Your task to perform on an android device: Play the last video I watched on Youtube Image 0: 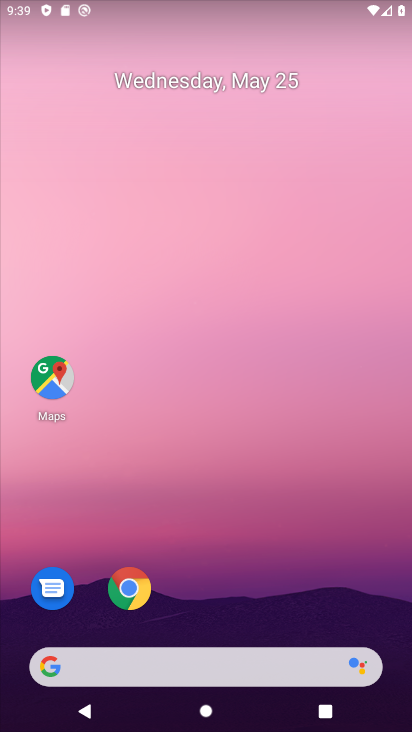
Step 0: drag from (253, 598) to (299, 8)
Your task to perform on an android device: Play the last video I watched on Youtube Image 1: 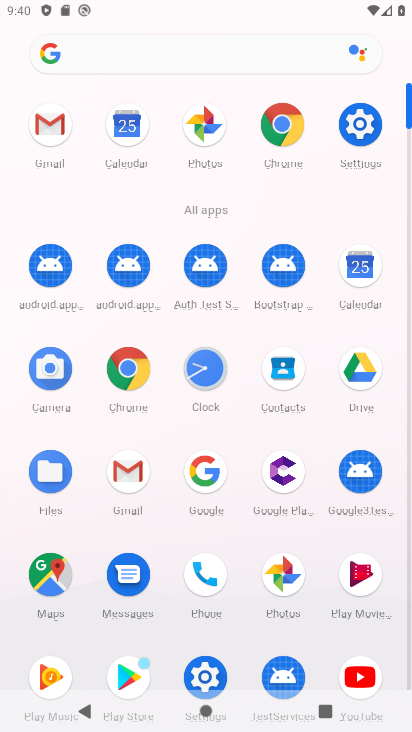
Step 1: click (364, 666)
Your task to perform on an android device: Play the last video I watched on Youtube Image 2: 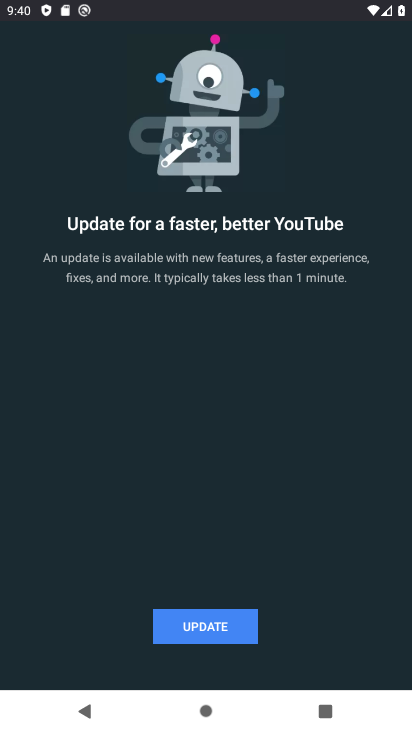
Step 2: click (221, 629)
Your task to perform on an android device: Play the last video I watched on Youtube Image 3: 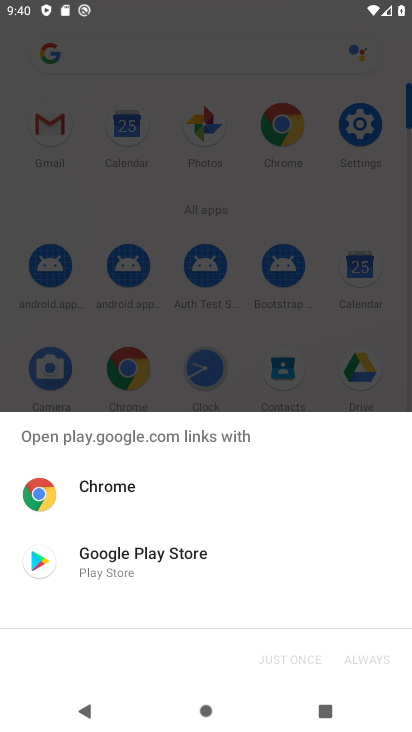
Step 3: click (112, 561)
Your task to perform on an android device: Play the last video I watched on Youtube Image 4: 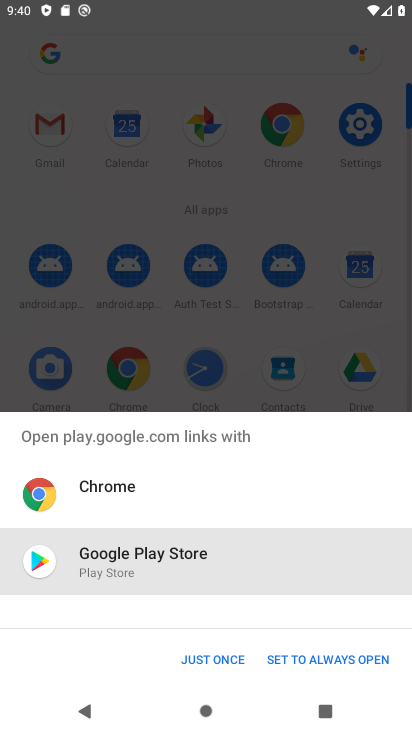
Step 4: click (199, 650)
Your task to perform on an android device: Play the last video I watched on Youtube Image 5: 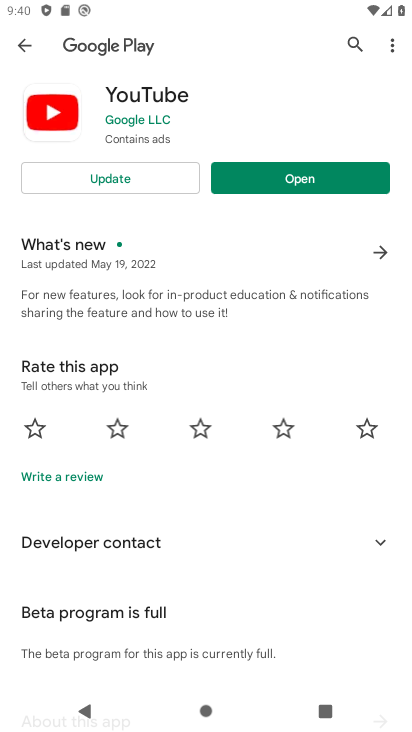
Step 5: click (97, 178)
Your task to perform on an android device: Play the last video I watched on Youtube Image 6: 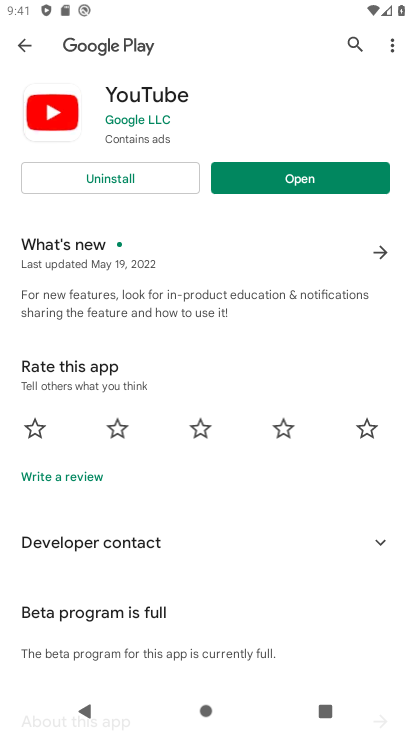
Step 6: click (283, 177)
Your task to perform on an android device: Play the last video I watched on Youtube Image 7: 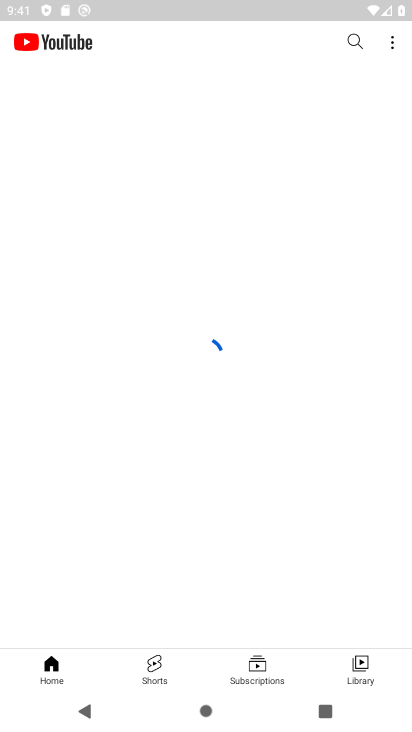
Step 7: click (381, 659)
Your task to perform on an android device: Play the last video I watched on Youtube Image 8: 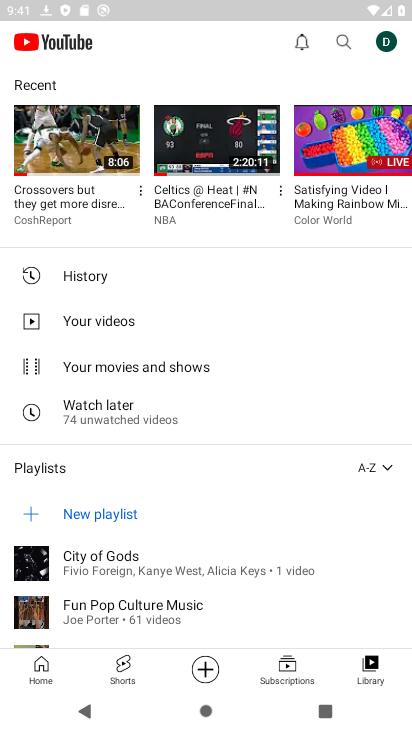
Step 8: click (60, 161)
Your task to perform on an android device: Play the last video I watched on Youtube Image 9: 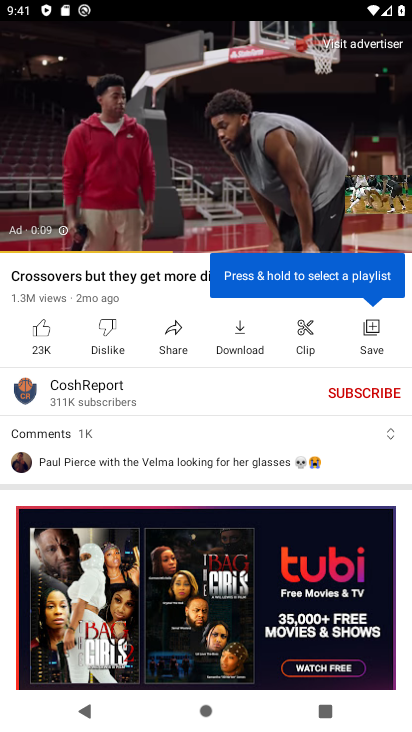
Step 9: task complete